Your task to perform on an android device: see tabs open on other devices in the chrome app Image 0: 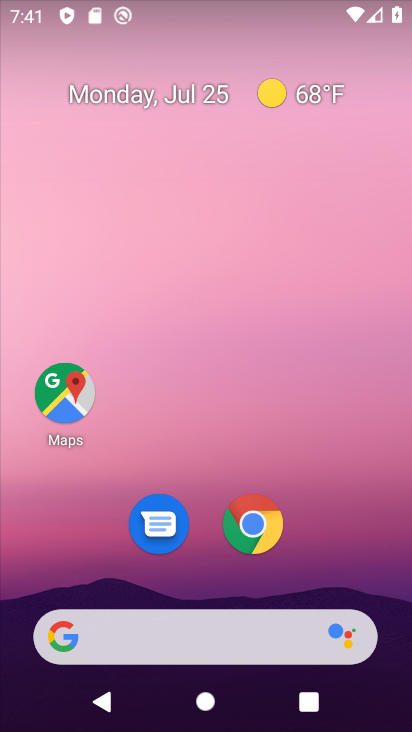
Step 0: drag from (334, 576) to (296, 110)
Your task to perform on an android device: see tabs open on other devices in the chrome app Image 1: 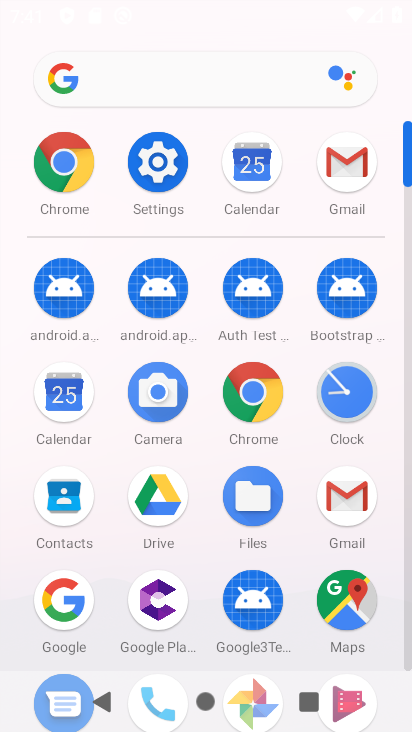
Step 1: click (74, 160)
Your task to perform on an android device: see tabs open on other devices in the chrome app Image 2: 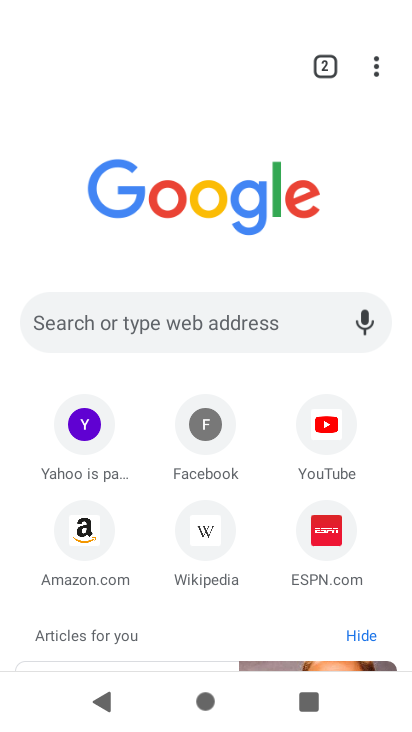
Step 2: click (377, 69)
Your task to perform on an android device: see tabs open on other devices in the chrome app Image 3: 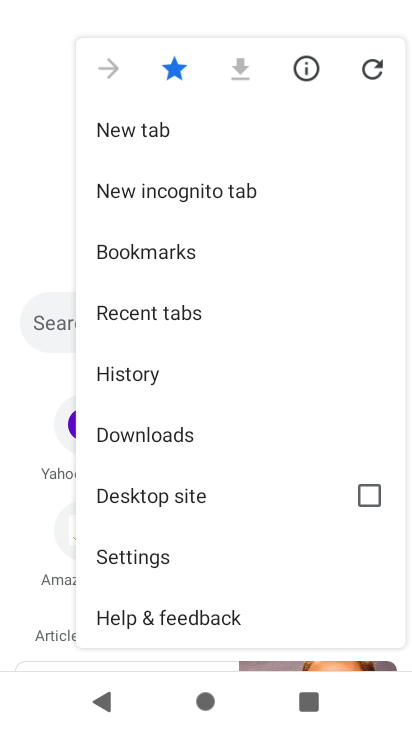
Step 3: click (186, 313)
Your task to perform on an android device: see tabs open on other devices in the chrome app Image 4: 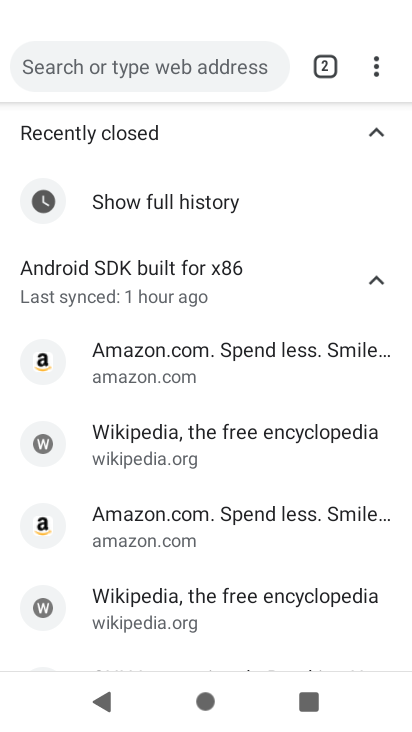
Step 4: task complete